Your task to perform on an android device: Show me popular videos on Youtube Image 0: 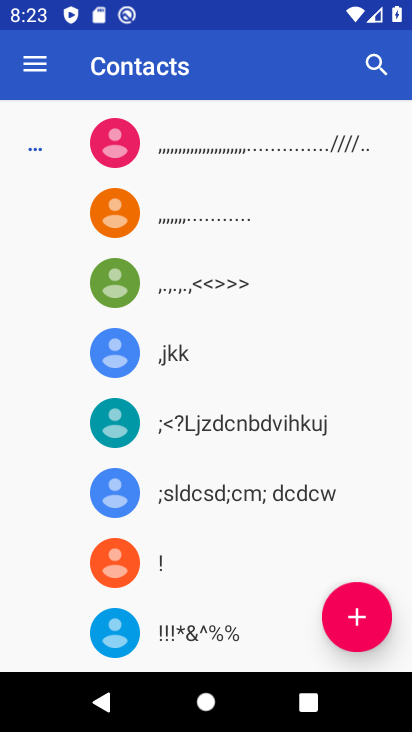
Step 0: press home button
Your task to perform on an android device: Show me popular videos on Youtube Image 1: 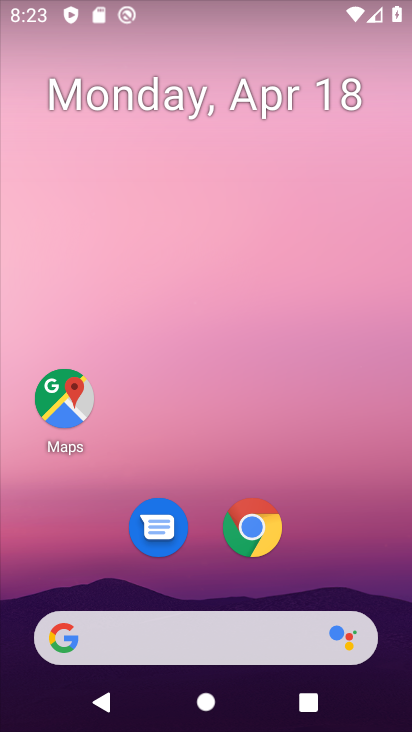
Step 1: drag from (210, 486) to (257, 17)
Your task to perform on an android device: Show me popular videos on Youtube Image 2: 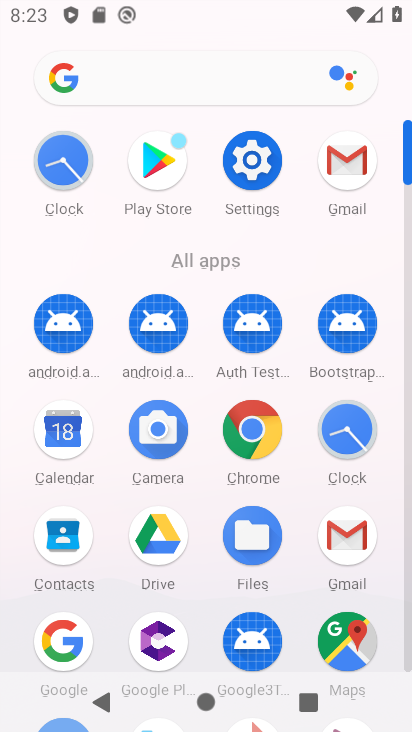
Step 2: drag from (208, 529) to (248, 186)
Your task to perform on an android device: Show me popular videos on Youtube Image 3: 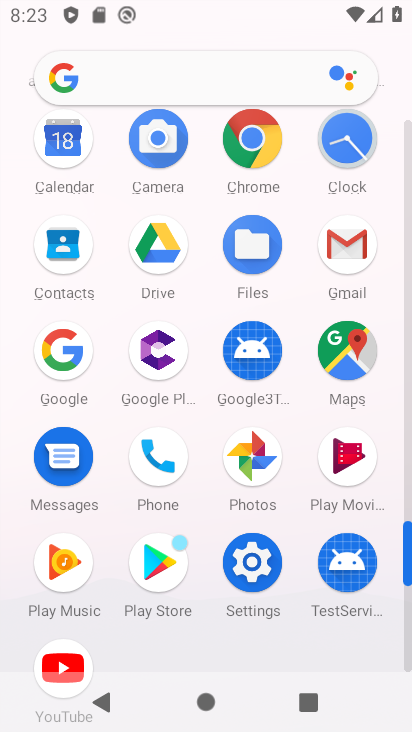
Step 3: click (68, 652)
Your task to perform on an android device: Show me popular videos on Youtube Image 4: 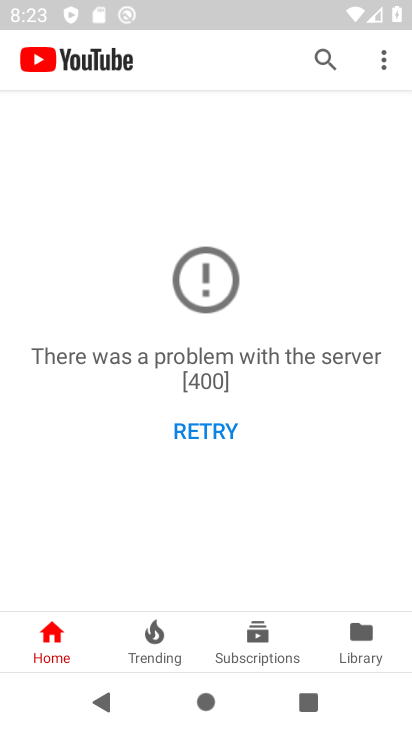
Step 4: click (161, 636)
Your task to perform on an android device: Show me popular videos on Youtube Image 5: 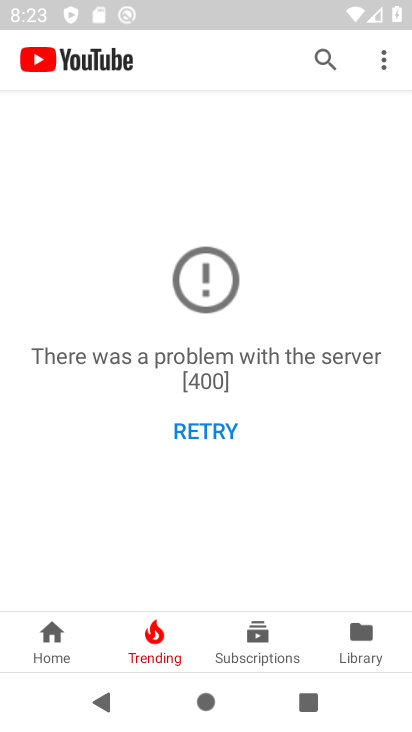
Step 5: click (193, 442)
Your task to perform on an android device: Show me popular videos on Youtube Image 6: 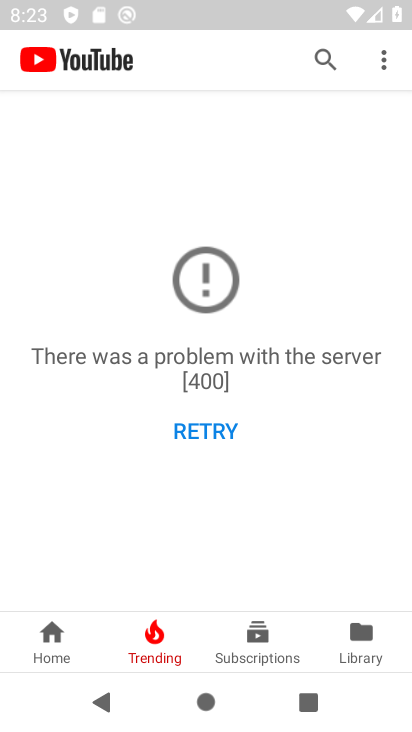
Step 6: click (193, 442)
Your task to perform on an android device: Show me popular videos on Youtube Image 7: 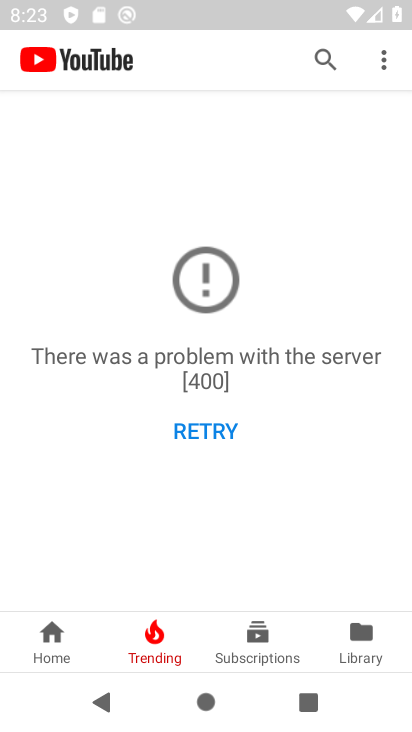
Step 7: task complete